Your task to perform on an android device: toggle javascript in the chrome app Image 0: 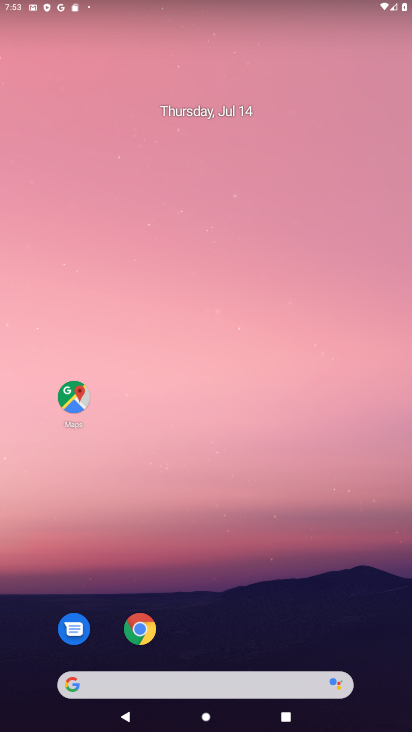
Step 0: click (139, 631)
Your task to perform on an android device: toggle javascript in the chrome app Image 1: 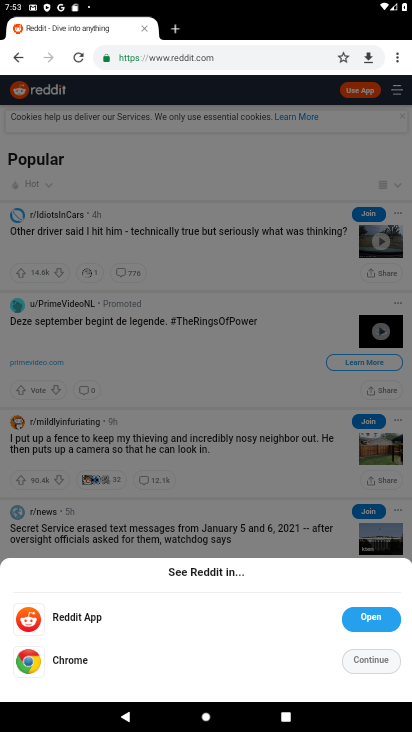
Step 1: click (394, 53)
Your task to perform on an android device: toggle javascript in the chrome app Image 2: 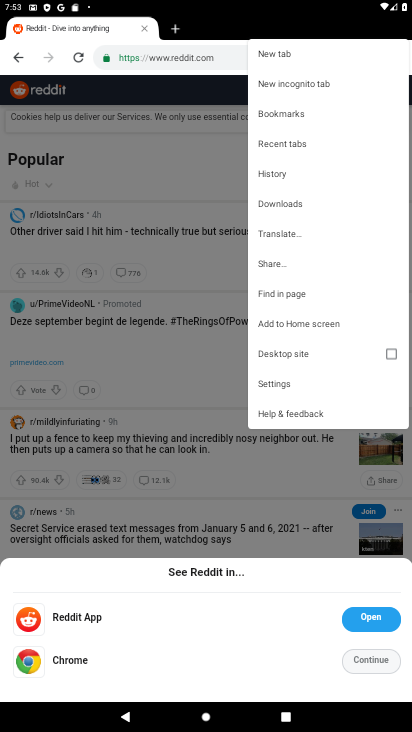
Step 2: click (299, 385)
Your task to perform on an android device: toggle javascript in the chrome app Image 3: 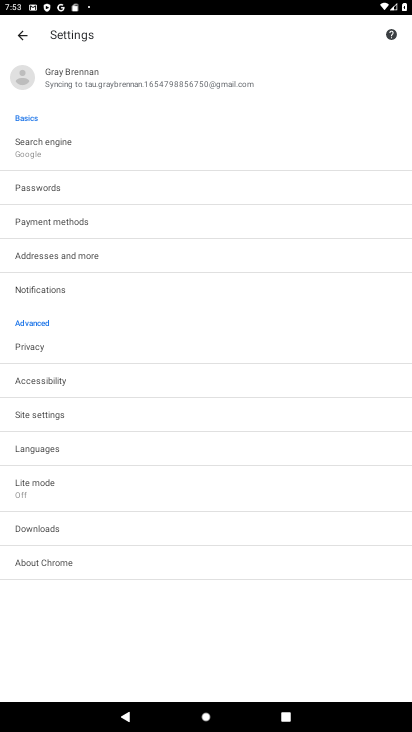
Step 3: click (55, 424)
Your task to perform on an android device: toggle javascript in the chrome app Image 4: 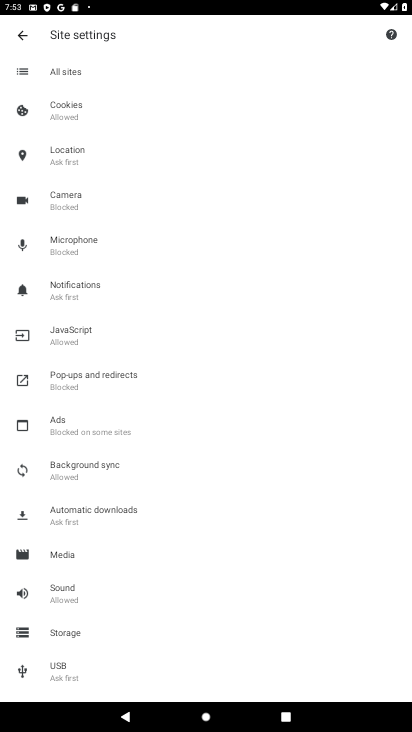
Step 4: click (106, 337)
Your task to perform on an android device: toggle javascript in the chrome app Image 5: 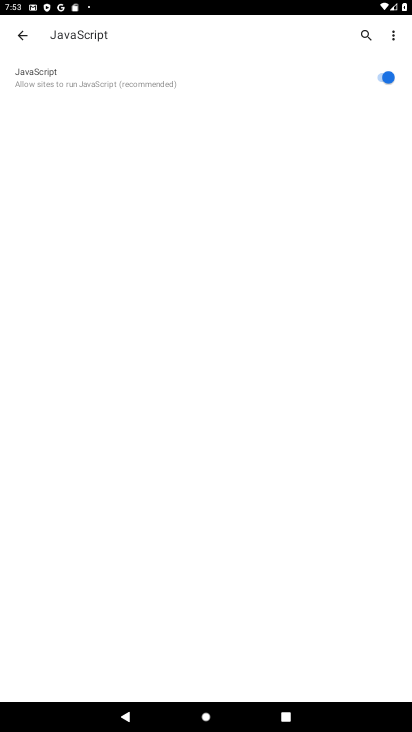
Step 5: click (373, 78)
Your task to perform on an android device: toggle javascript in the chrome app Image 6: 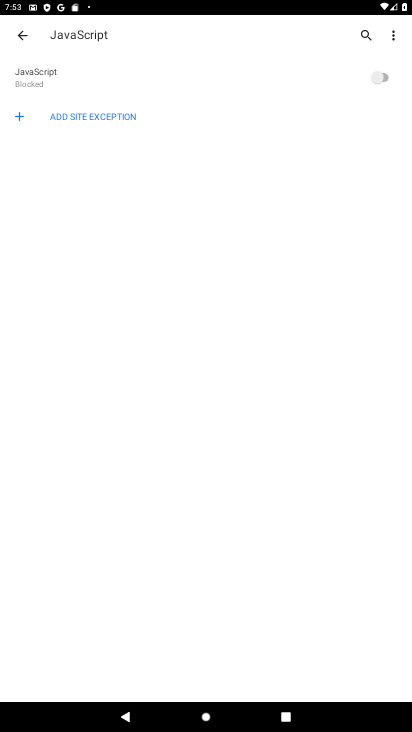
Step 6: task complete